Your task to perform on an android device: clear all cookies in the chrome app Image 0: 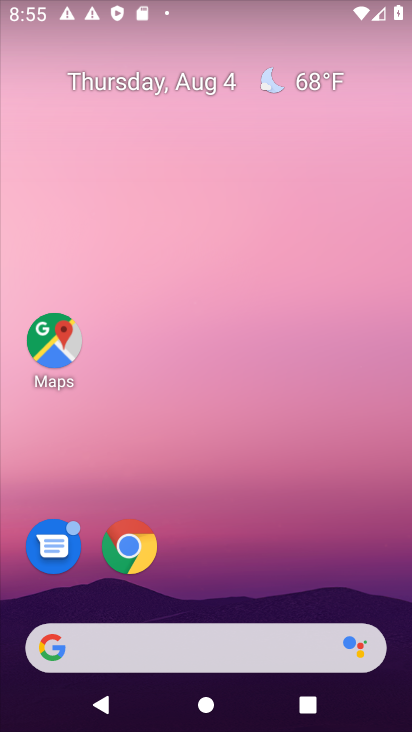
Step 0: press home button
Your task to perform on an android device: clear all cookies in the chrome app Image 1: 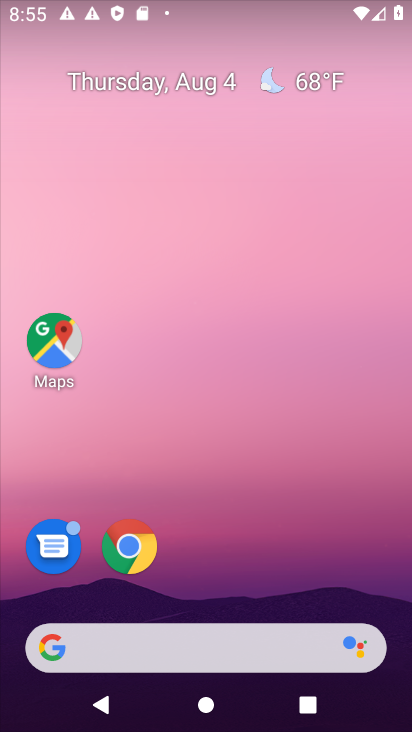
Step 1: click (134, 542)
Your task to perform on an android device: clear all cookies in the chrome app Image 2: 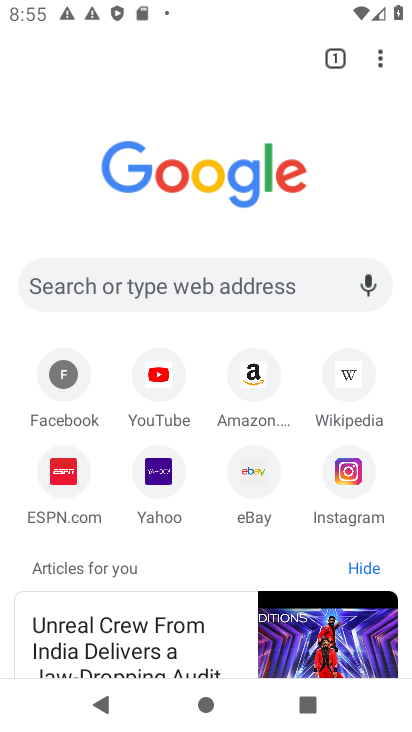
Step 2: drag from (388, 58) to (174, 491)
Your task to perform on an android device: clear all cookies in the chrome app Image 3: 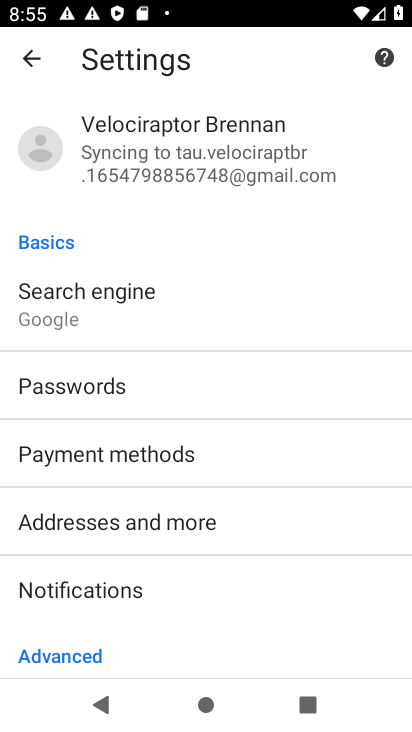
Step 3: drag from (275, 631) to (252, 219)
Your task to perform on an android device: clear all cookies in the chrome app Image 4: 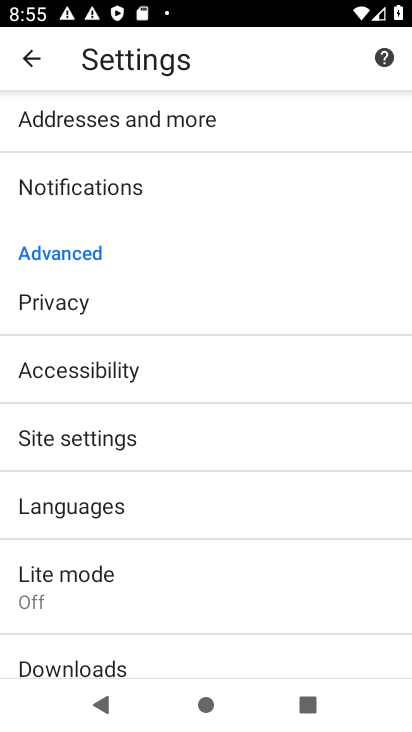
Step 4: click (57, 304)
Your task to perform on an android device: clear all cookies in the chrome app Image 5: 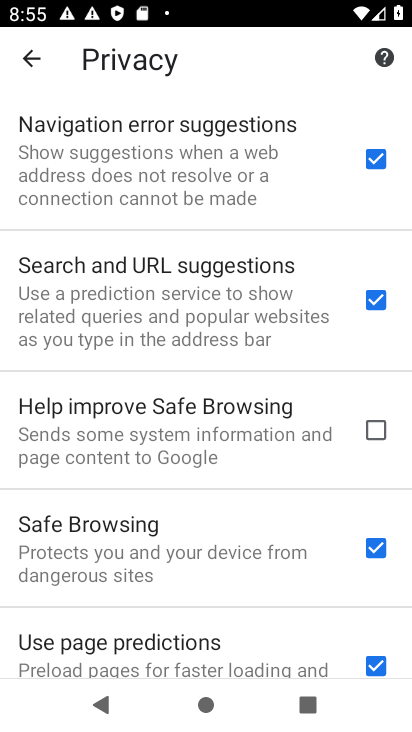
Step 5: drag from (271, 579) to (275, 202)
Your task to perform on an android device: clear all cookies in the chrome app Image 6: 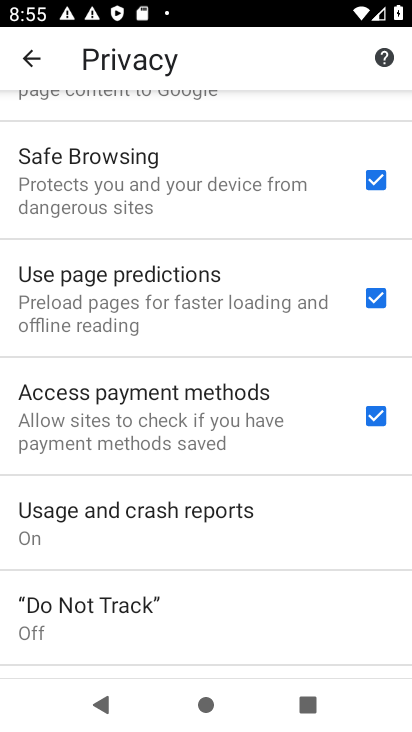
Step 6: drag from (290, 577) to (288, 138)
Your task to perform on an android device: clear all cookies in the chrome app Image 7: 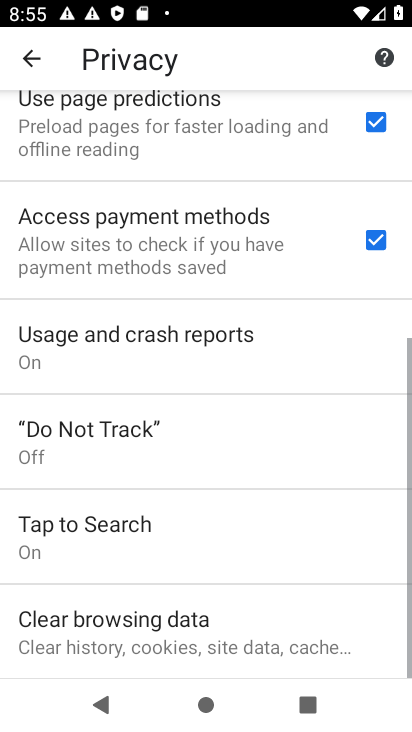
Step 7: click (114, 626)
Your task to perform on an android device: clear all cookies in the chrome app Image 8: 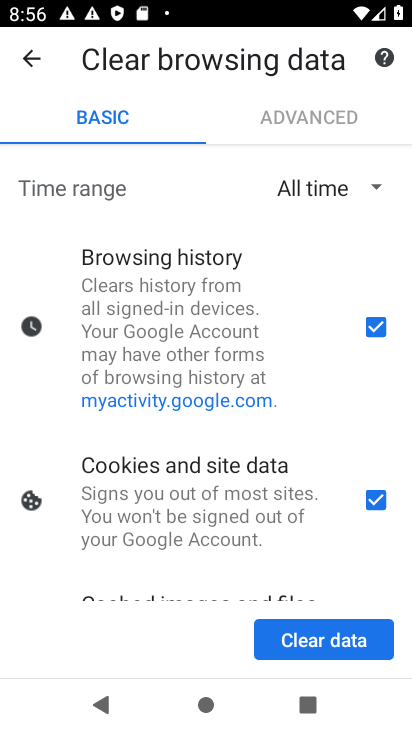
Step 8: click (377, 326)
Your task to perform on an android device: clear all cookies in the chrome app Image 9: 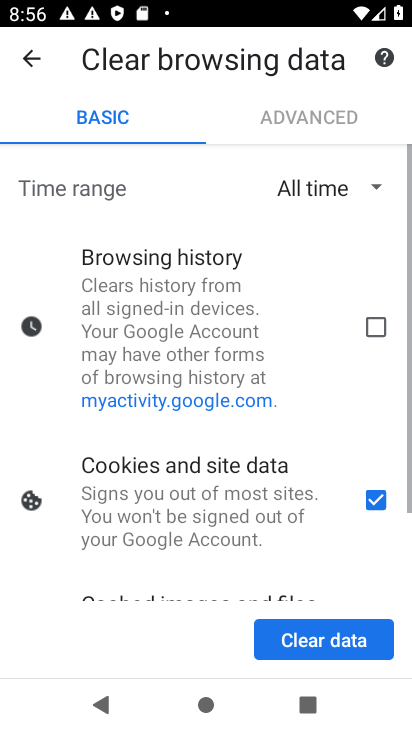
Step 9: drag from (344, 409) to (368, 86)
Your task to perform on an android device: clear all cookies in the chrome app Image 10: 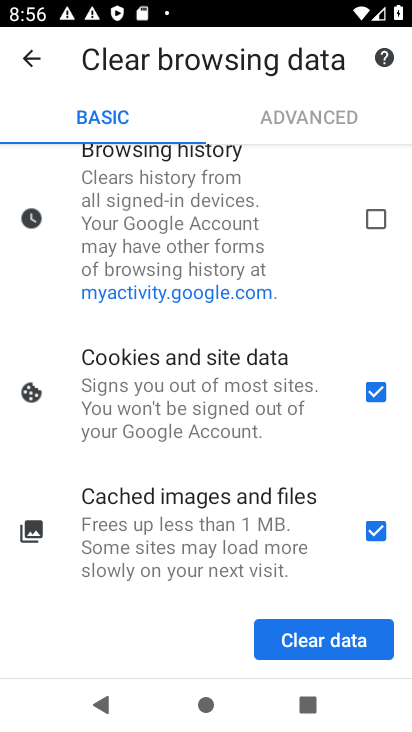
Step 10: click (382, 532)
Your task to perform on an android device: clear all cookies in the chrome app Image 11: 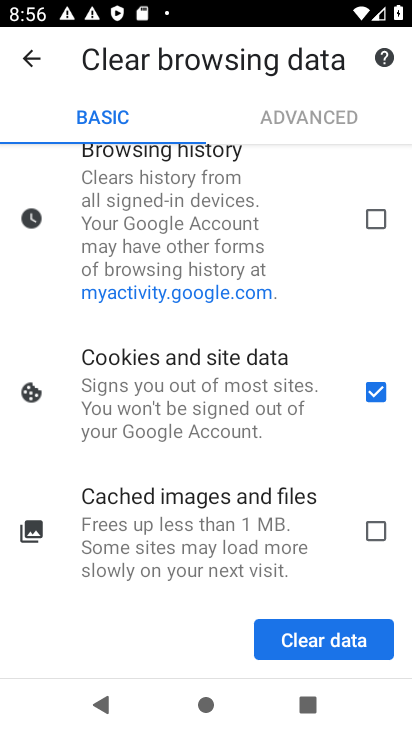
Step 11: click (301, 635)
Your task to perform on an android device: clear all cookies in the chrome app Image 12: 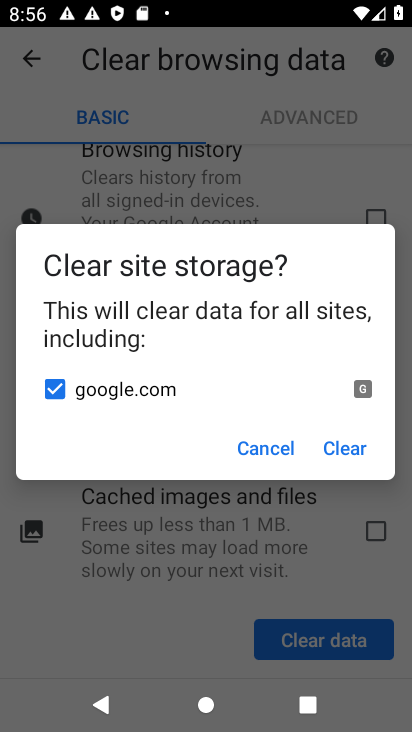
Step 12: click (340, 452)
Your task to perform on an android device: clear all cookies in the chrome app Image 13: 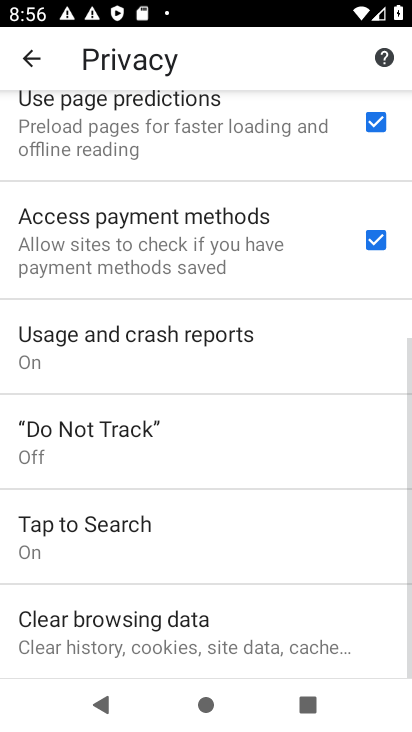
Step 13: task complete